Your task to perform on an android device: Go to internet settings Image 0: 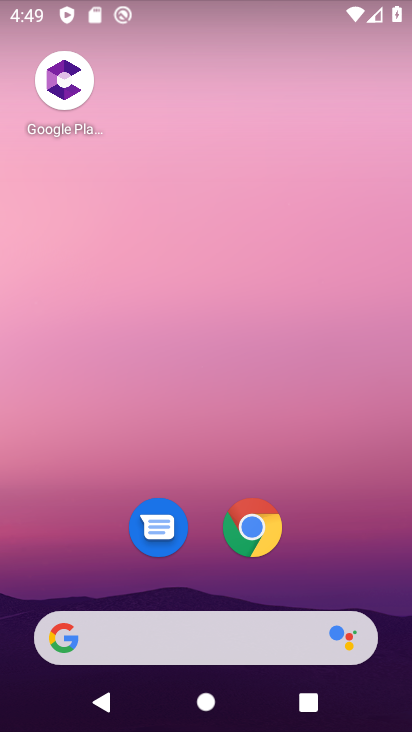
Step 0: drag from (286, 184) to (279, 91)
Your task to perform on an android device: Go to internet settings Image 1: 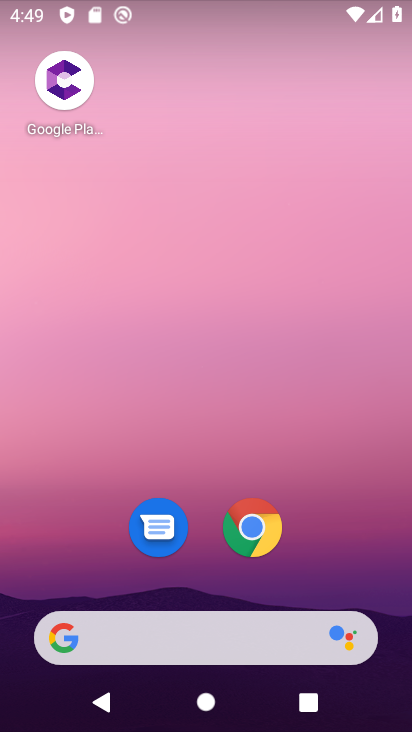
Step 1: drag from (360, 458) to (322, 13)
Your task to perform on an android device: Go to internet settings Image 2: 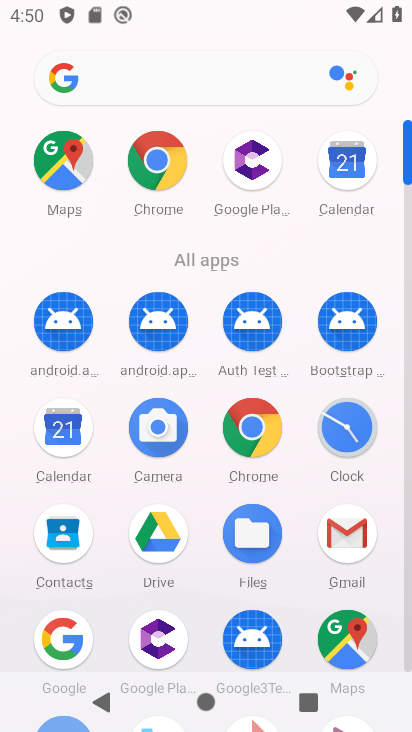
Step 2: click (277, 292)
Your task to perform on an android device: Go to internet settings Image 3: 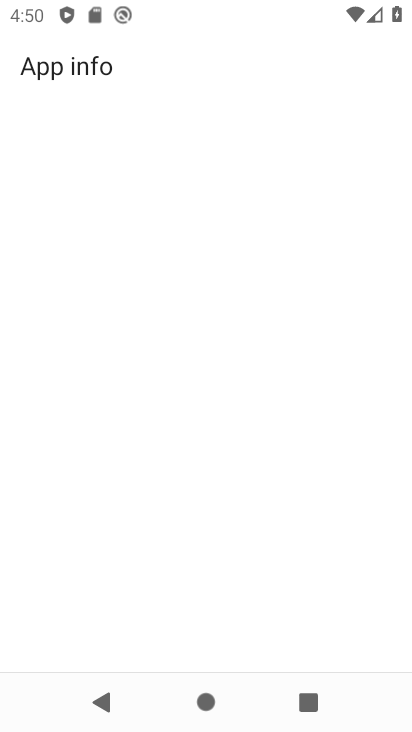
Step 3: drag from (293, 625) to (265, 232)
Your task to perform on an android device: Go to internet settings Image 4: 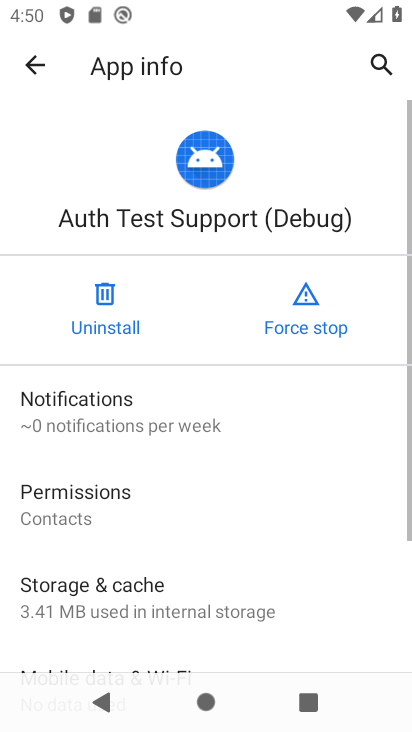
Step 4: press home button
Your task to perform on an android device: Go to internet settings Image 5: 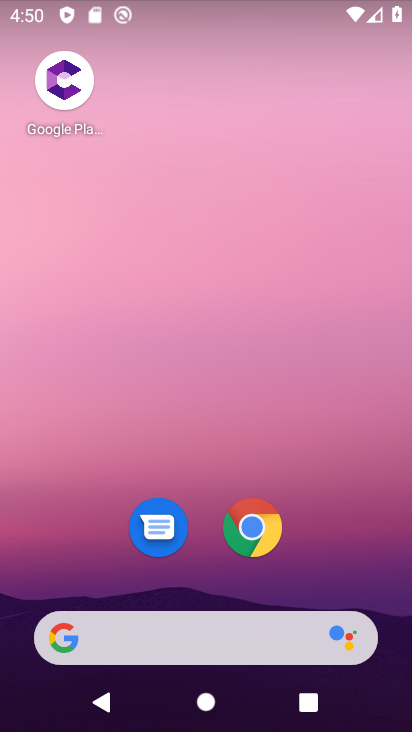
Step 5: drag from (354, 263) to (356, 56)
Your task to perform on an android device: Go to internet settings Image 6: 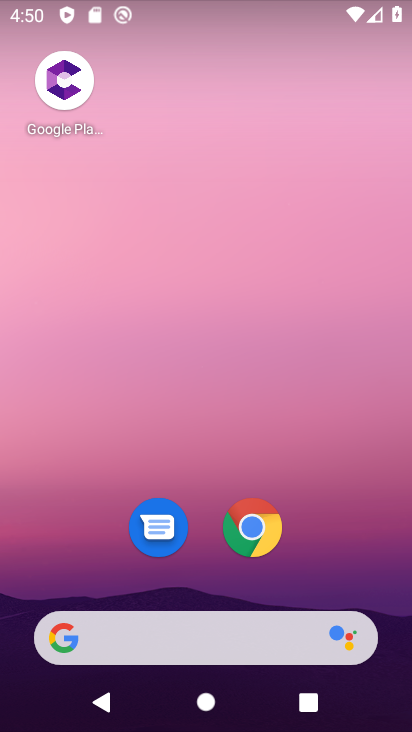
Step 6: drag from (385, 555) to (343, 121)
Your task to perform on an android device: Go to internet settings Image 7: 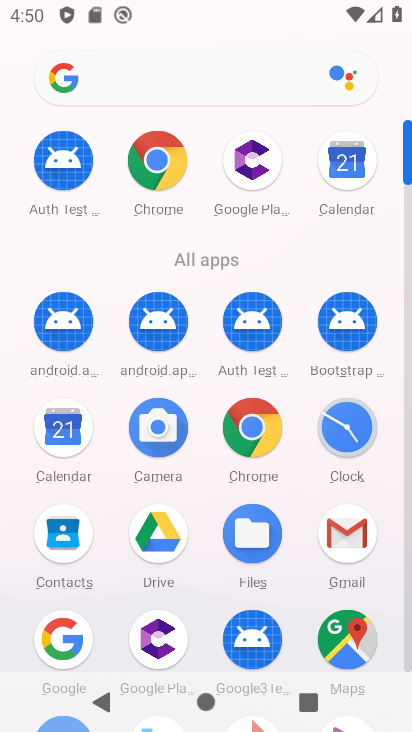
Step 7: click (406, 72)
Your task to perform on an android device: Go to internet settings Image 8: 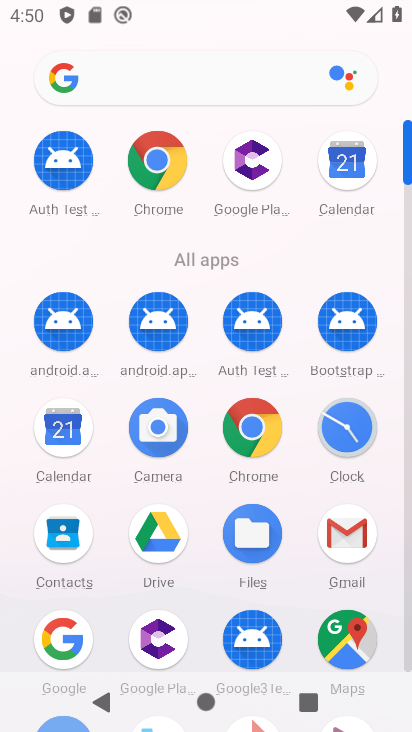
Step 8: click (403, 90)
Your task to perform on an android device: Go to internet settings Image 9: 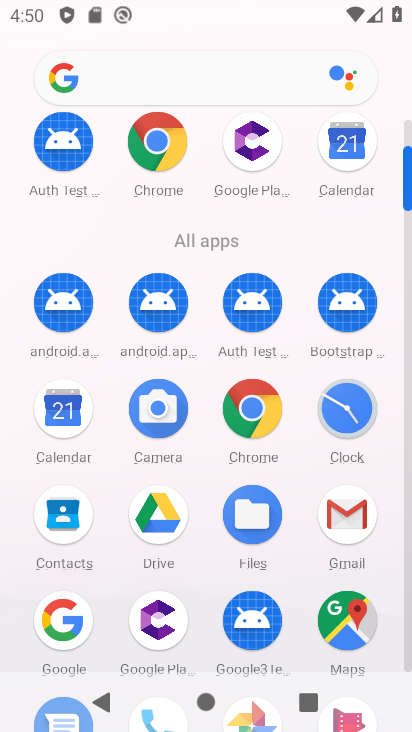
Step 9: drag from (406, 154) to (404, 72)
Your task to perform on an android device: Go to internet settings Image 10: 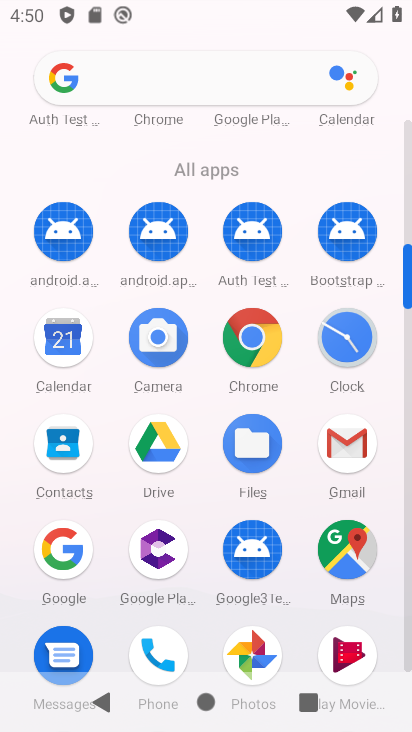
Step 10: drag from (405, 261) to (402, 85)
Your task to perform on an android device: Go to internet settings Image 11: 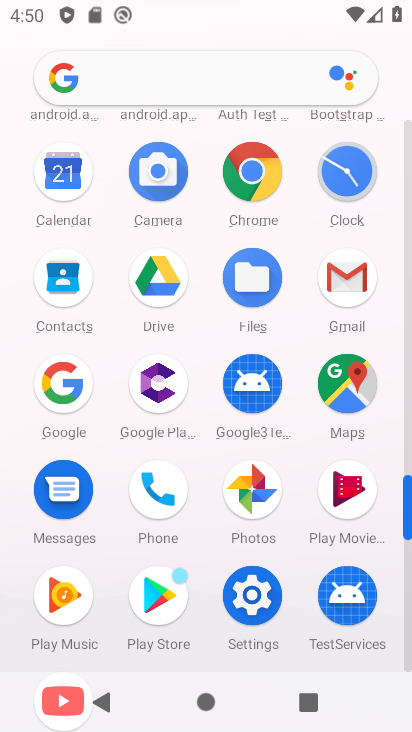
Step 11: click (251, 573)
Your task to perform on an android device: Go to internet settings Image 12: 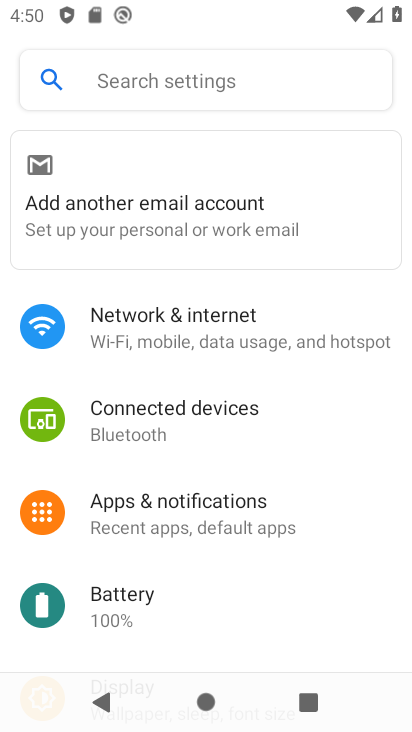
Step 12: click (145, 336)
Your task to perform on an android device: Go to internet settings Image 13: 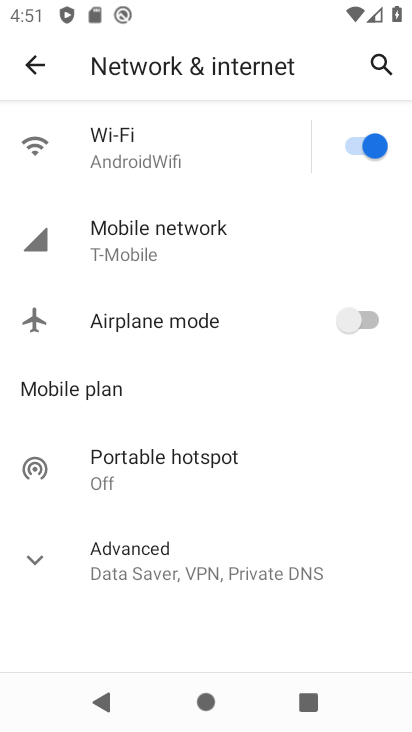
Step 13: click (119, 135)
Your task to perform on an android device: Go to internet settings Image 14: 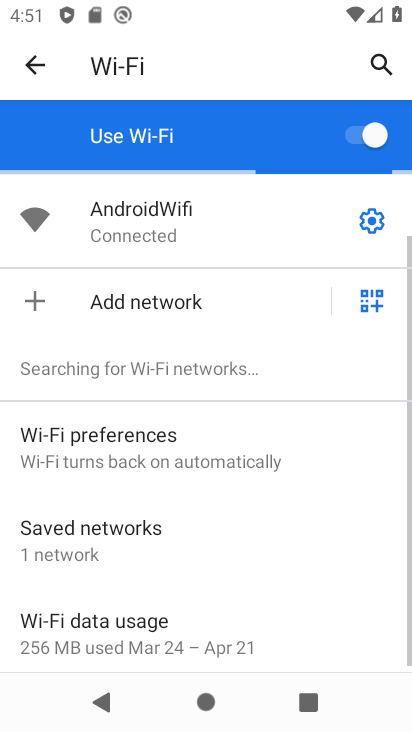
Step 14: click (29, 64)
Your task to perform on an android device: Go to internet settings Image 15: 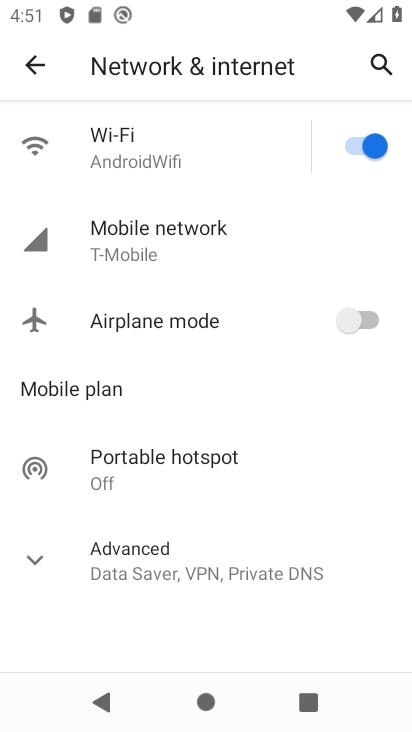
Step 15: click (126, 244)
Your task to perform on an android device: Go to internet settings Image 16: 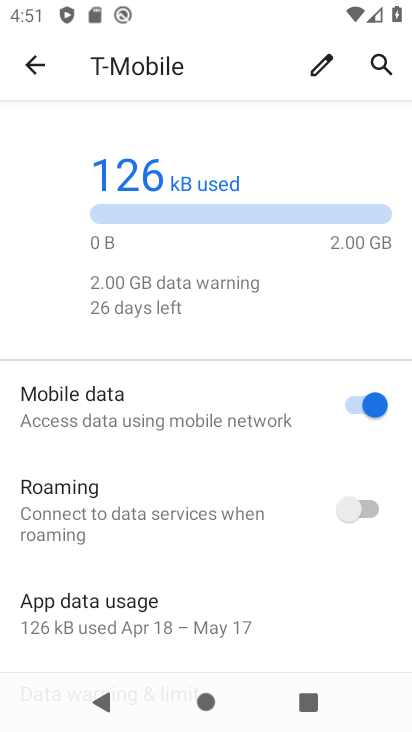
Step 16: click (36, 67)
Your task to perform on an android device: Go to internet settings Image 17: 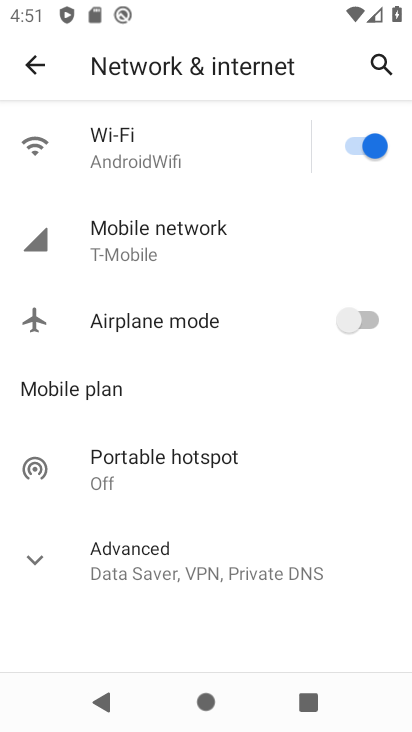
Step 17: task complete